Your task to perform on an android device: Go to settings Image 0: 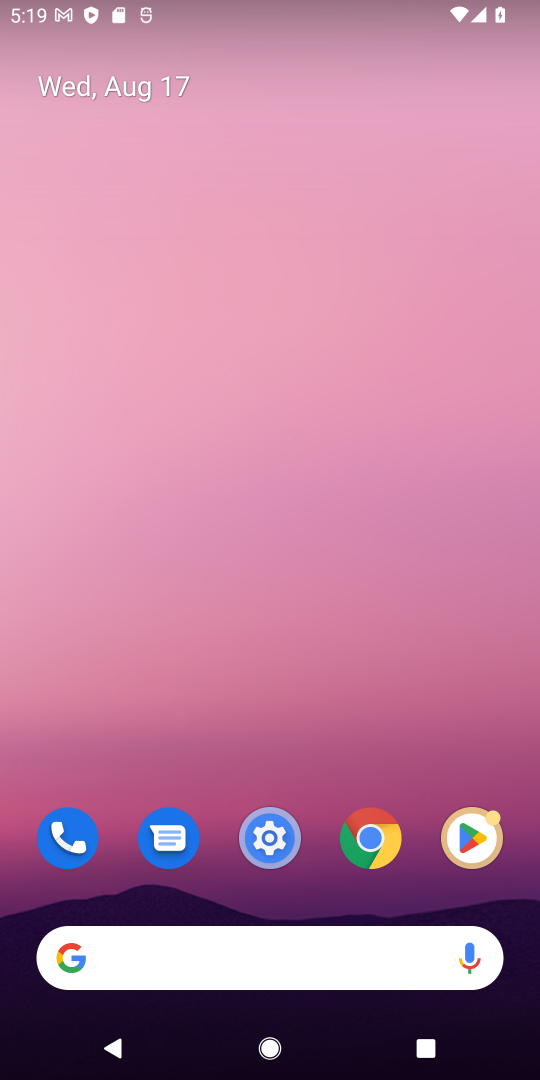
Step 0: click (282, 829)
Your task to perform on an android device: Go to settings Image 1: 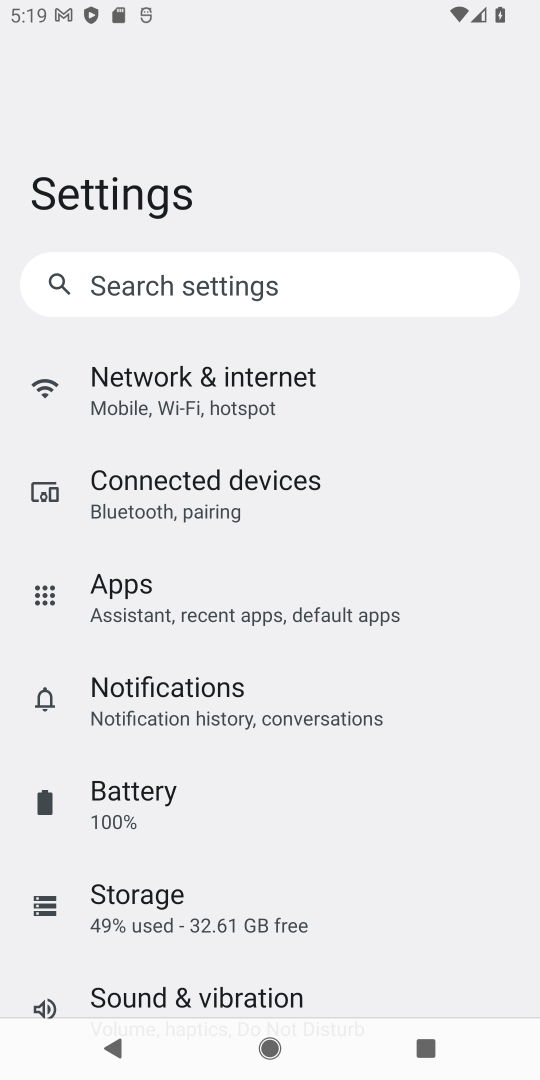
Step 1: task complete